Your task to perform on an android device: Go to CNN.com Image 0: 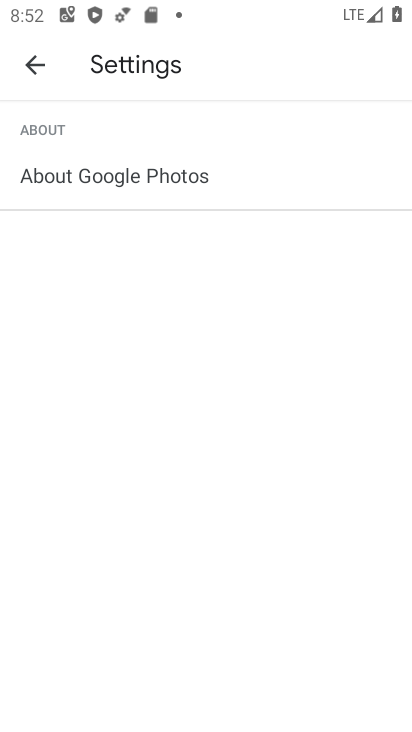
Step 0: press home button
Your task to perform on an android device: Go to CNN.com Image 1: 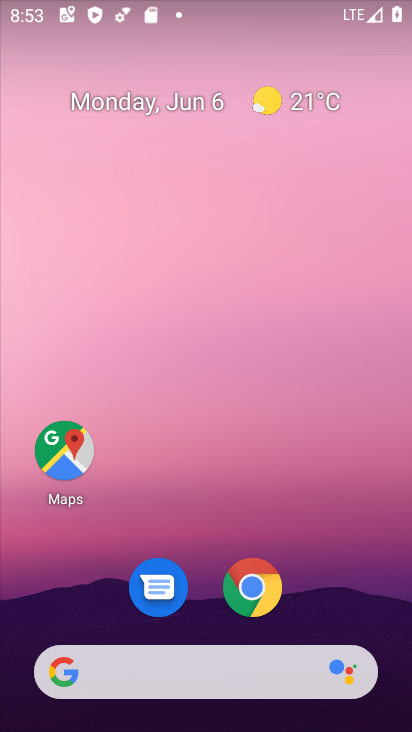
Step 1: click (155, 689)
Your task to perform on an android device: Go to CNN.com Image 2: 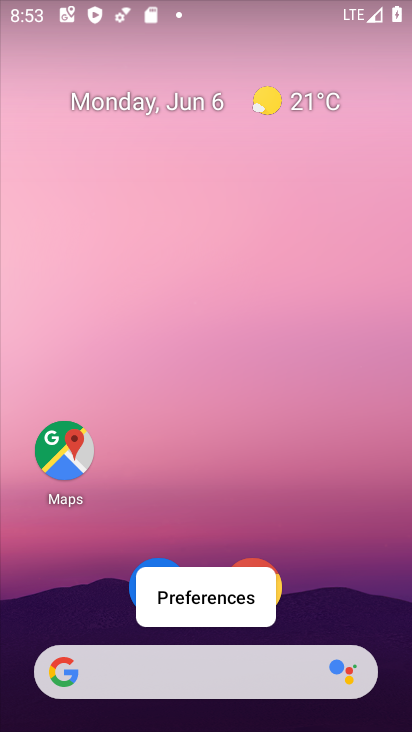
Step 2: type "cnn.com"
Your task to perform on an android device: Go to CNN.com Image 3: 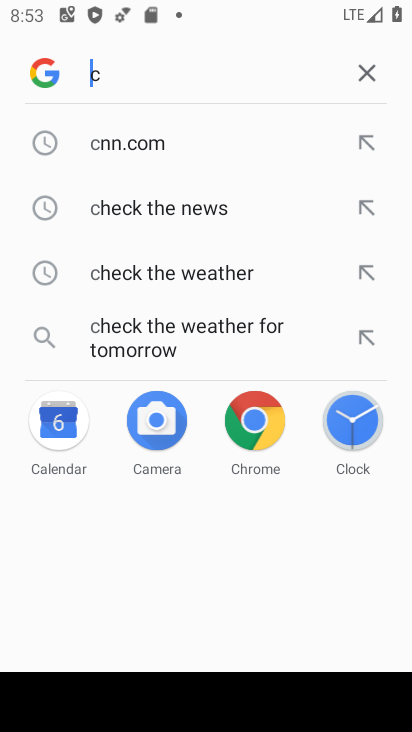
Step 3: click (171, 150)
Your task to perform on an android device: Go to CNN.com Image 4: 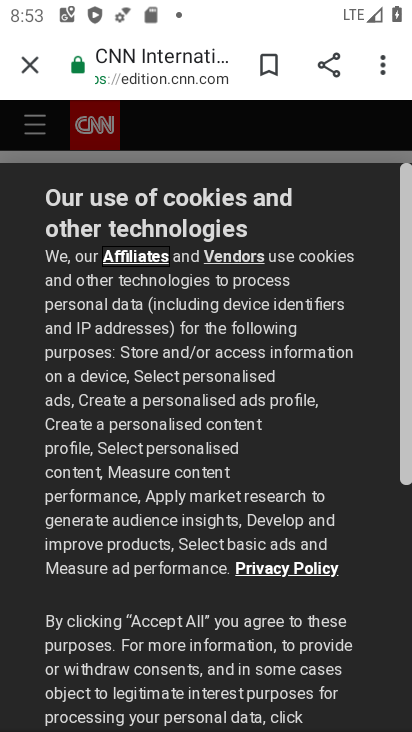
Step 4: task complete